Your task to perform on an android device: see tabs open on other devices in the chrome app Image 0: 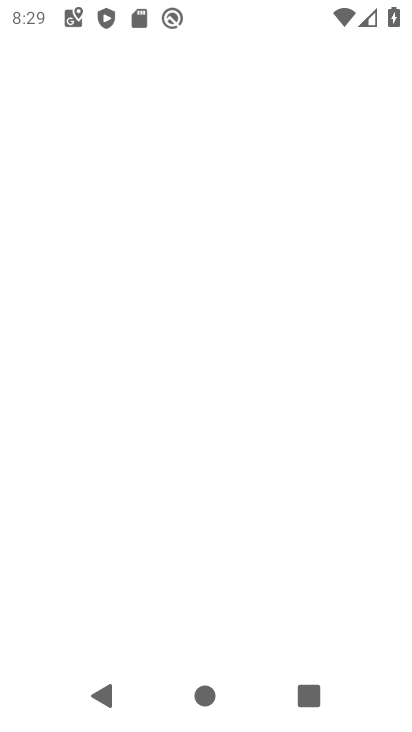
Step 0: press home button
Your task to perform on an android device: see tabs open on other devices in the chrome app Image 1: 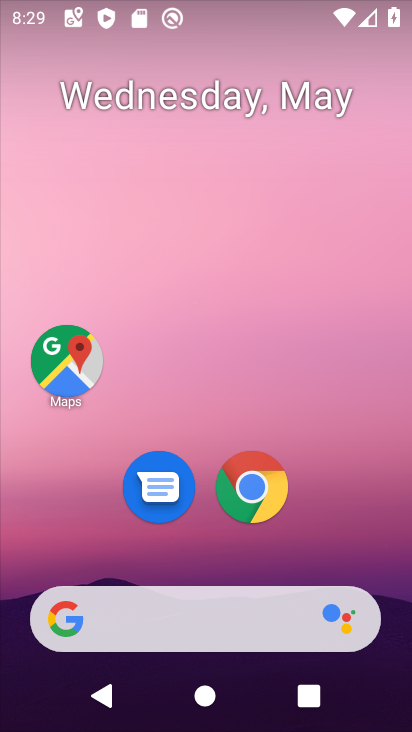
Step 1: click (250, 478)
Your task to perform on an android device: see tabs open on other devices in the chrome app Image 2: 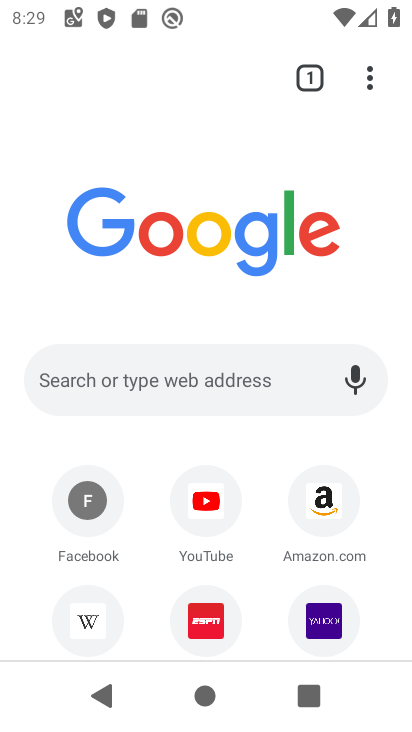
Step 2: click (368, 63)
Your task to perform on an android device: see tabs open on other devices in the chrome app Image 3: 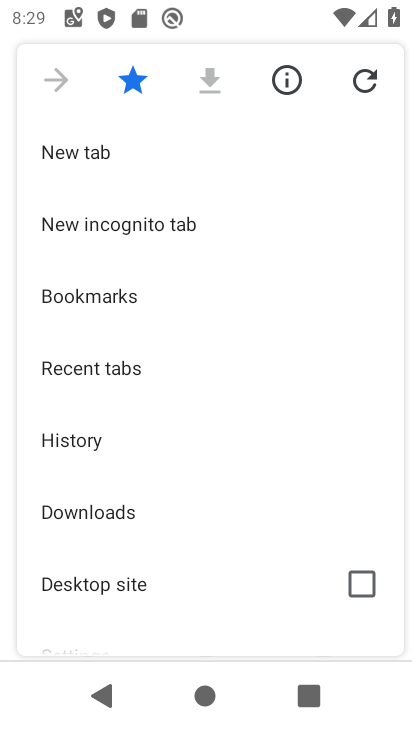
Step 3: click (151, 372)
Your task to perform on an android device: see tabs open on other devices in the chrome app Image 4: 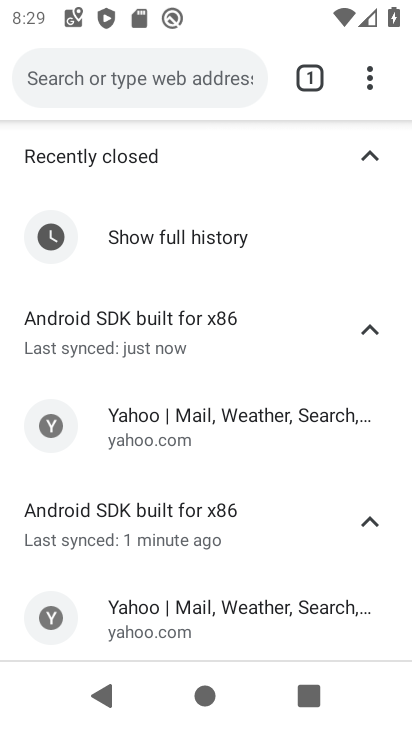
Step 4: task complete